Your task to perform on an android device: turn off wifi Image 0: 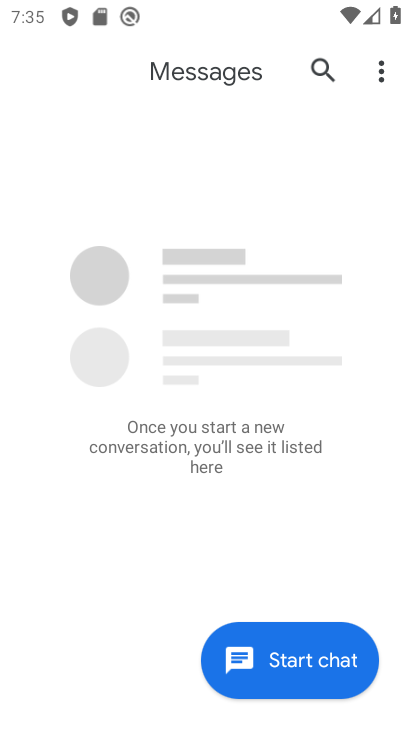
Step 0: drag from (198, 425) to (185, 0)
Your task to perform on an android device: turn off wifi Image 1: 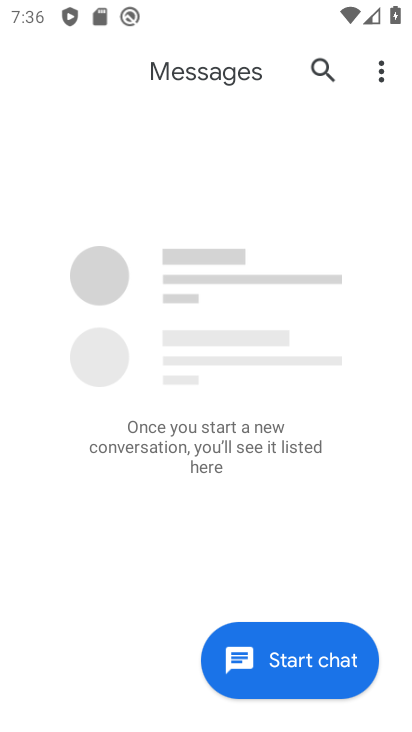
Step 1: drag from (157, 8) to (296, 532)
Your task to perform on an android device: turn off wifi Image 2: 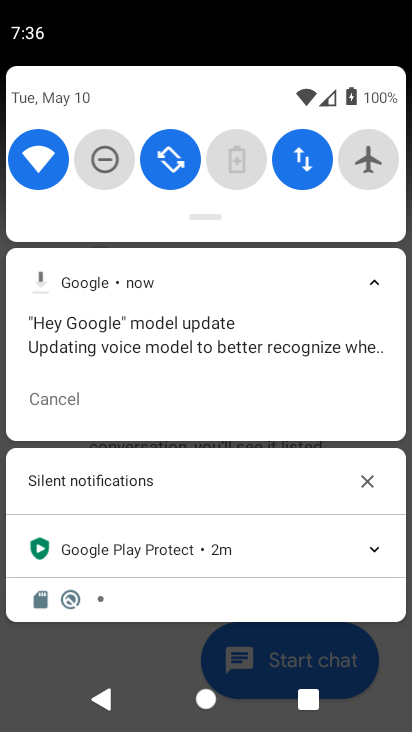
Step 2: click (42, 169)
Your task to perform on an android device: turn off wifi Image 3: 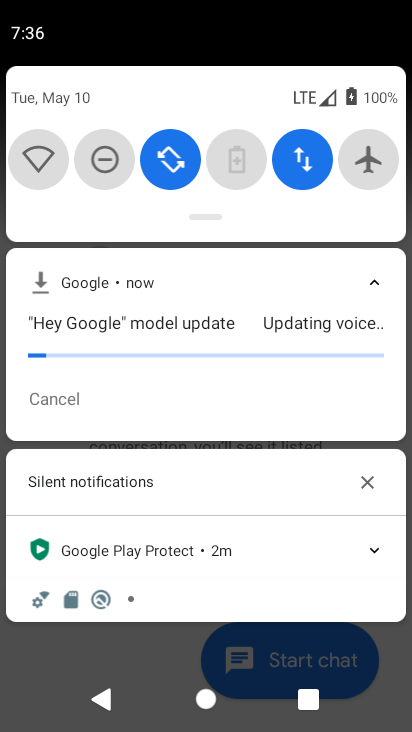
Step 3: task complete